Your task to perform on an android device: Go to wifi settings Image 0: 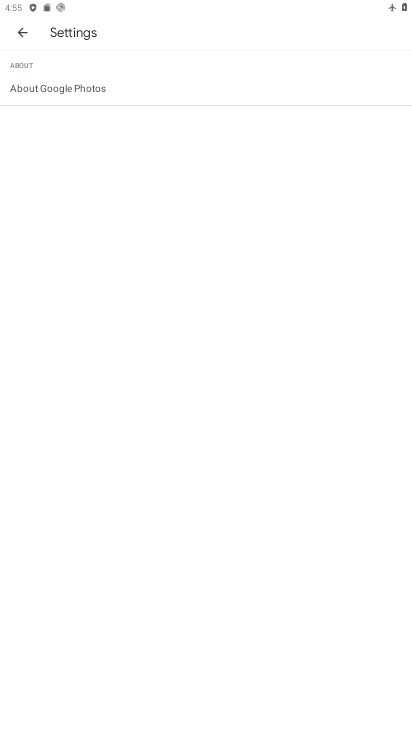
Step 0: press home button
Your task to perform on an android device: Go to wifi settings Image 1: 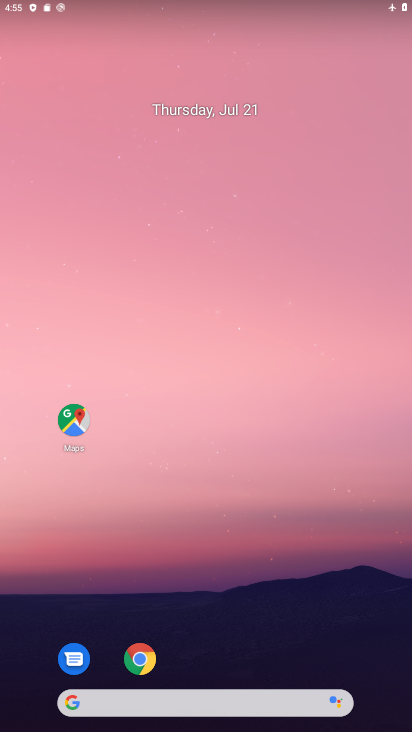
Step 1: drag from (8, 313) to (403, 350)
Your task to perform on an android device: Go to wifi settings Image 2: 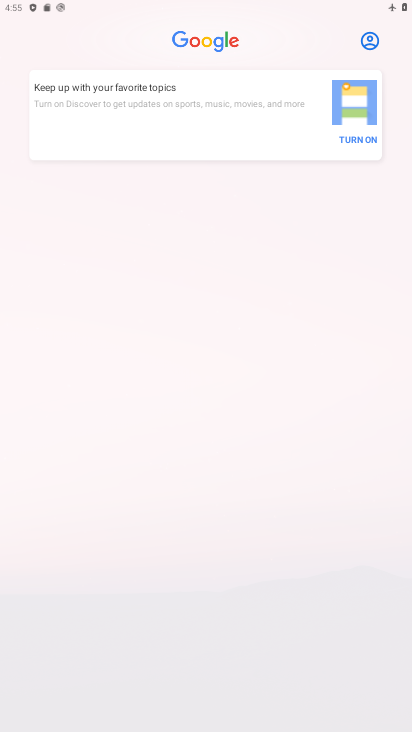
Step 2: press home button
Your task to perform on an android device: Go to wifi settings Image 3: 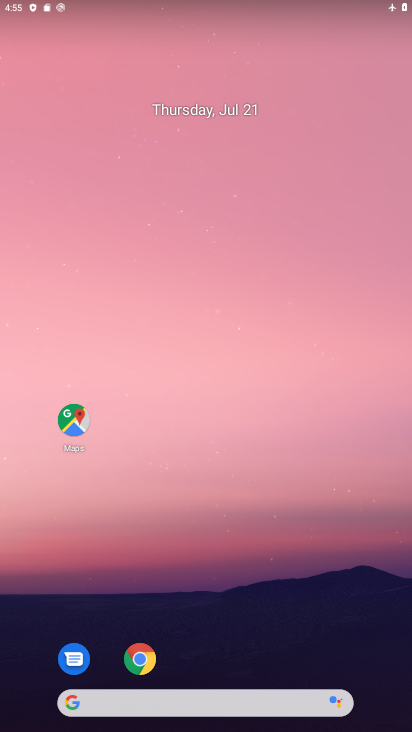
Step 3: drag from (333, 672) to (238, 106)
Your task to perform on an android device: Go to wifi settings Image 4: 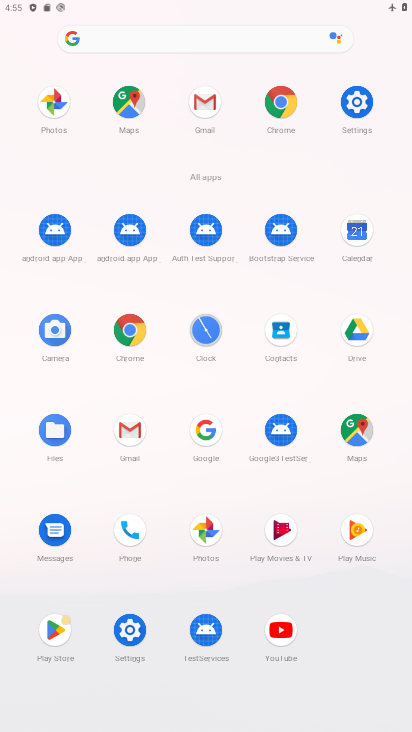
Step 4: click (130, 628)
Your task to perform on an android device: Go to wifi settings Image 5: 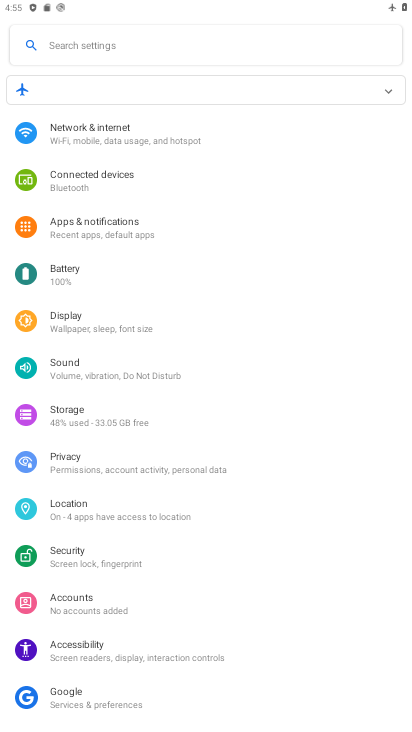
Step 5: click (85, 122)
Your task to perform on an android device: Go to wifi settings Image 6: 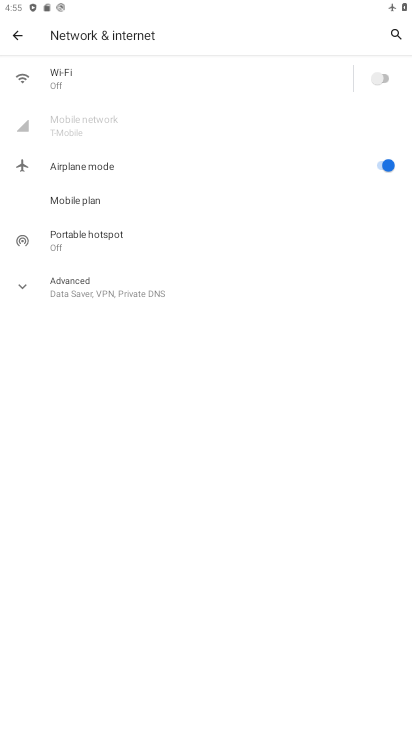
Step 6: click (55, 64)
Your task to perform on an android device: Go to wifi settings Image 7: 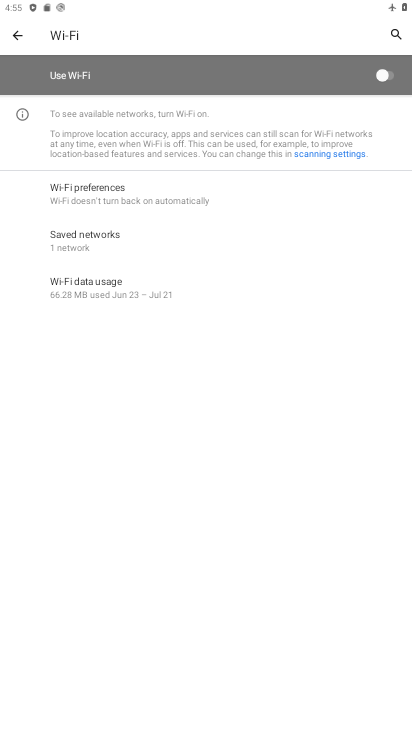
Step 7: task complete